Your task to perform on an android device: Open battery settings Image 0: 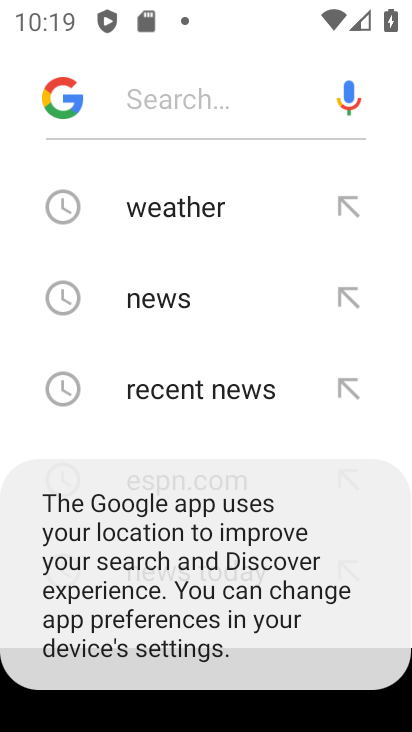
Step 0: press home button
Your task to perform on an android device: Open battery settings Image 1: 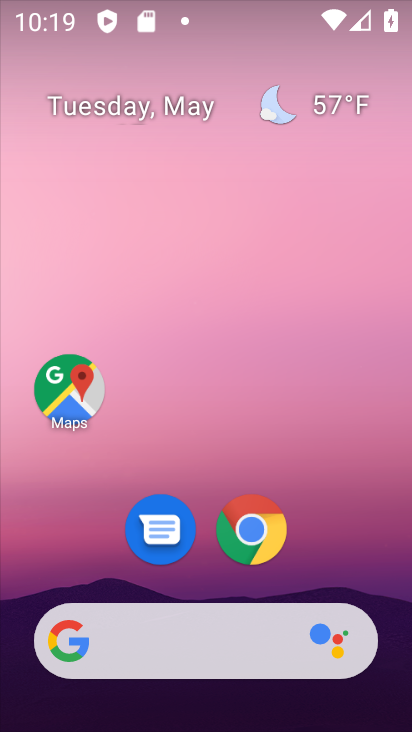
Step 1: drag from (208, 570) to (251, 28)
Your task to perform on an android device: Open battery settings Image 2: 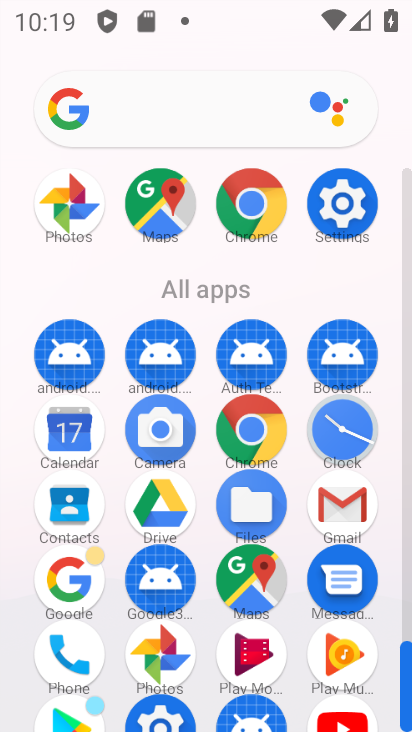
Step 2: click (340, 176)
Your task to perform on an android device: Open battery settings Image 3: 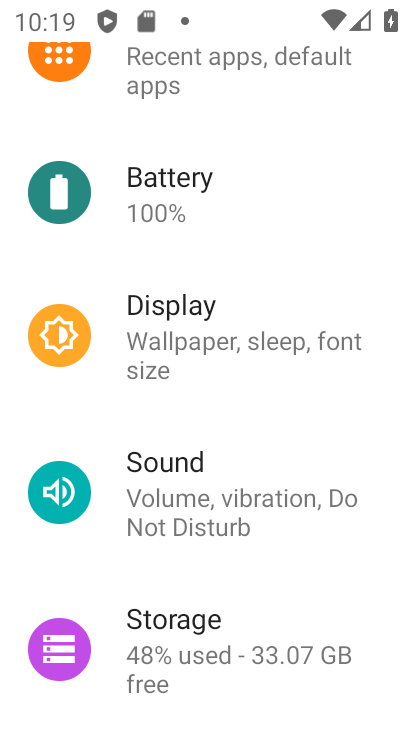
Step 3: click (152, 201)
Your task to perform on an android device: Open battery settings Image 4: 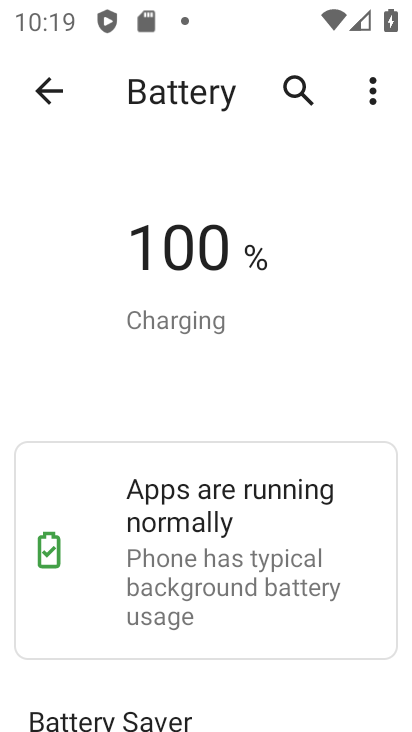
Step 4: task complete